Your task to perform on an android device: turn on the 12-hour format for clock Image 0: 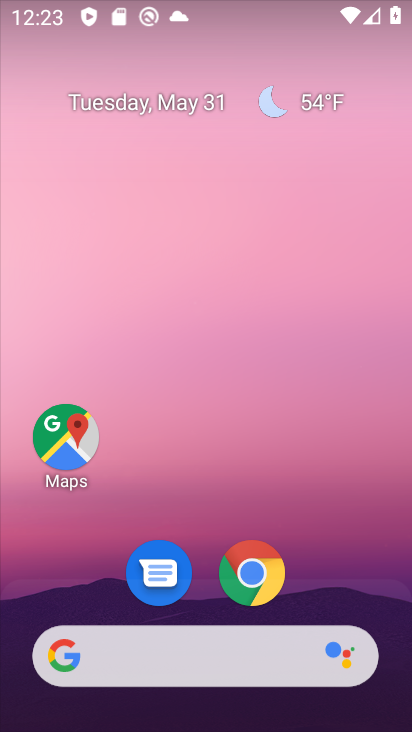
Step 0: click (259, 394)
Your task to perform on an android device: turn on the 12-hour format for clock Image 1: 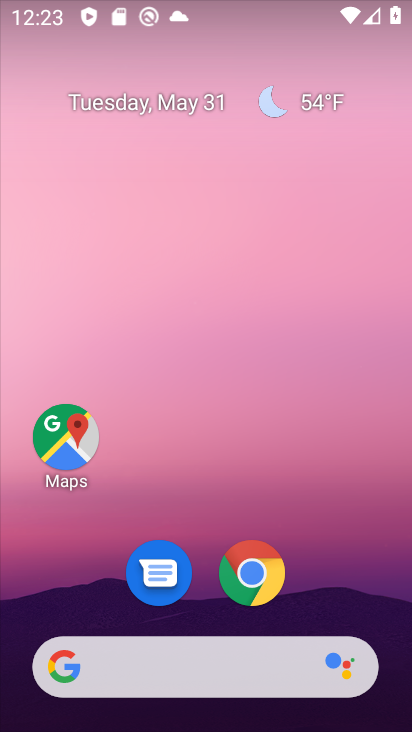
Step 1: press home button
Your task to perform on an android device: turn on the 12-hour format for clock Image 2: 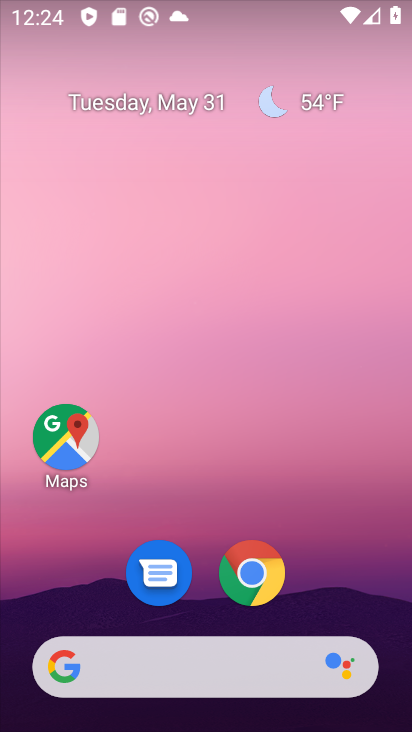
Step 2: drag from (112, 628) to (219, 67)
Your task to perform on an android device: turn on the 12-hour format for clock Image 3: 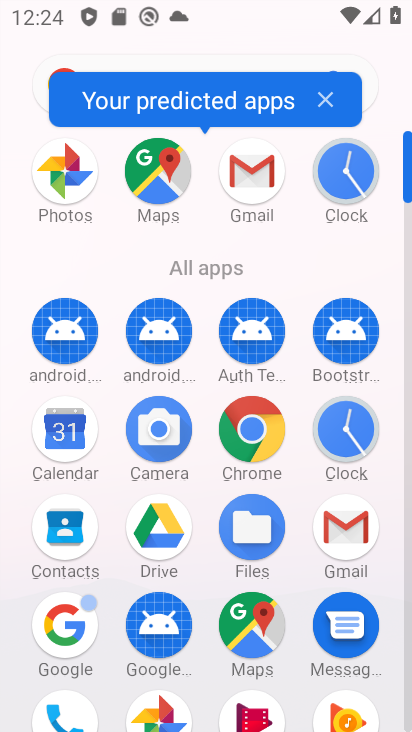
Step 3: click (358, 414)
Your task to perform on an android device: turn on the 12-hour format for clock Image 4: 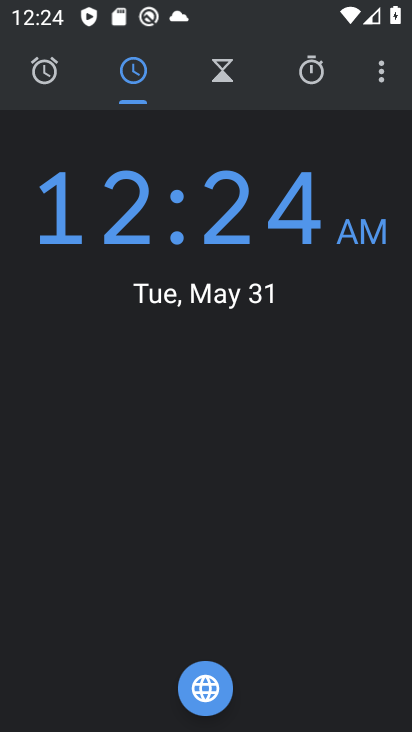
Step 4: click (384, 58)
Your task to perform on an android device: turn on the 12-hour format for clock Image 5: 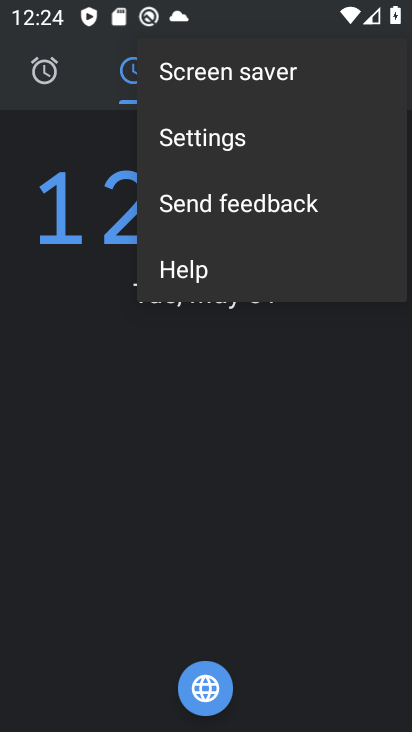
Step 5: click (326, 139)
Your task to perform on an android device: turn on the 12-hour format for clock Image 6: 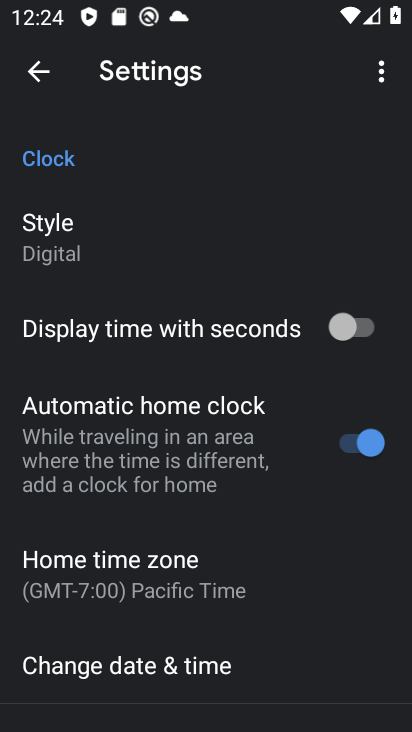
Step 6: click (233, 662)
Your task to perform on an android device: turn on the 12-hour format for clock Image 7: 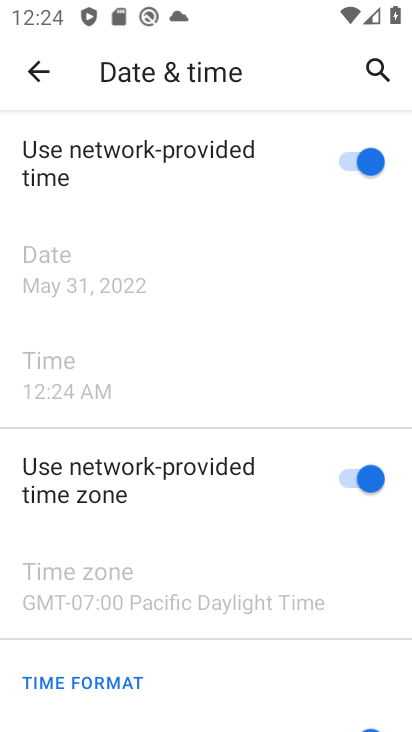
Step 7: task complete